Your task to perform on an android device: add a contact Image 0: 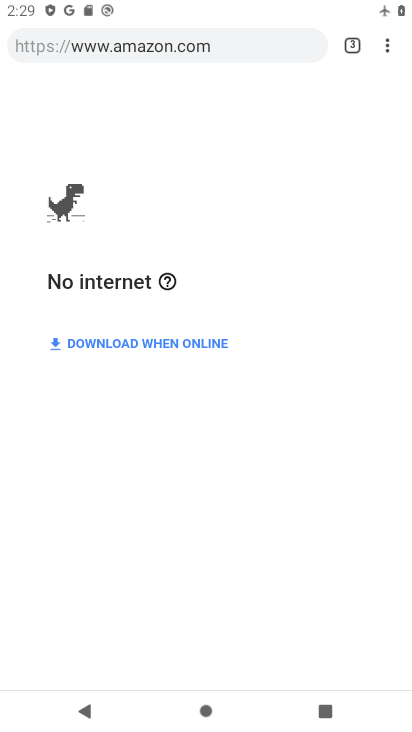
Step 0: press home button
Your task to perform on an android device: add a contact Image 1: 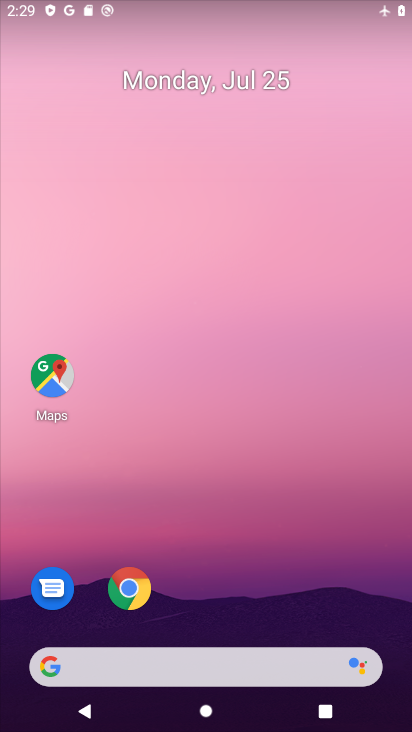
Step 1: drag from (213, 622) to (225, 48)
Your task to perform on an android device: add a contact Image 2: 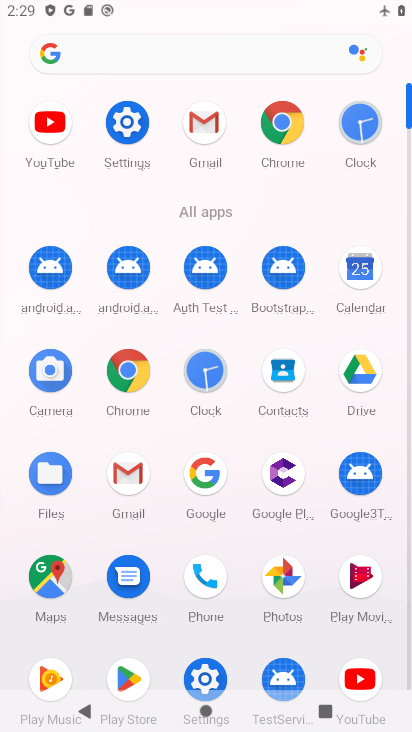
Step 2: click (273, 365)
Your task to perform on an android device: add a contact Image 3: 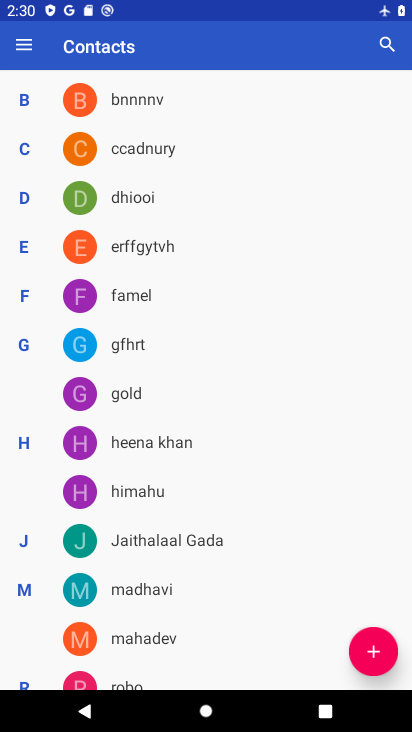
Step 3: click (371, 645)
Your task to perform on an android device: add a contact Image 4: 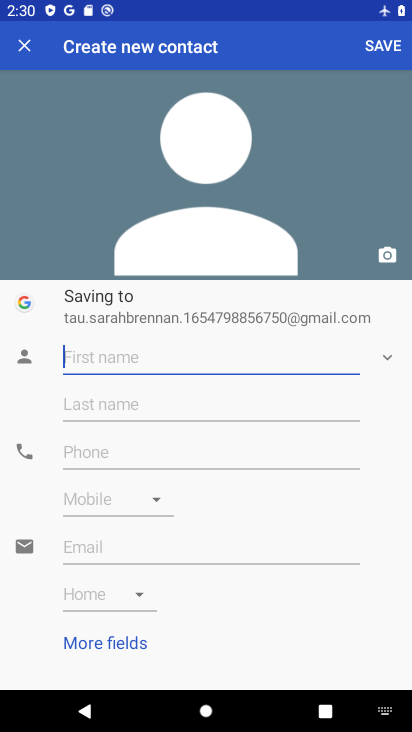
Step 4: type "yffgdh"
Your task to perform on an android device: add a contact Image 5: 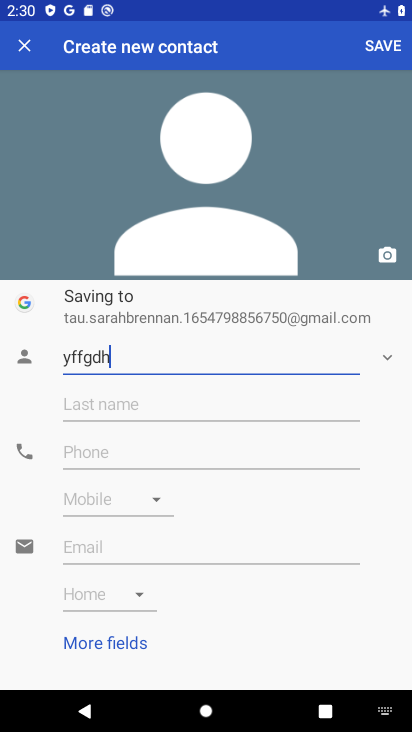
Step 5: click (375, 42)
Your task to perform on an android device: add a contact Image 6: 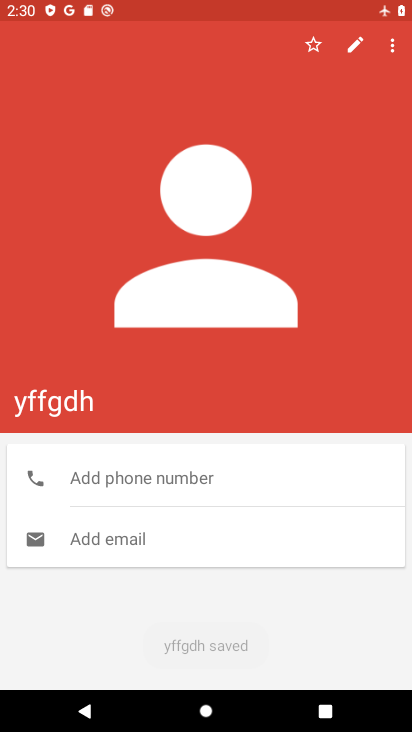
Step 6: task complete